Your task to perform on an android device: delete the emails in spam in the gmail app Image 0: 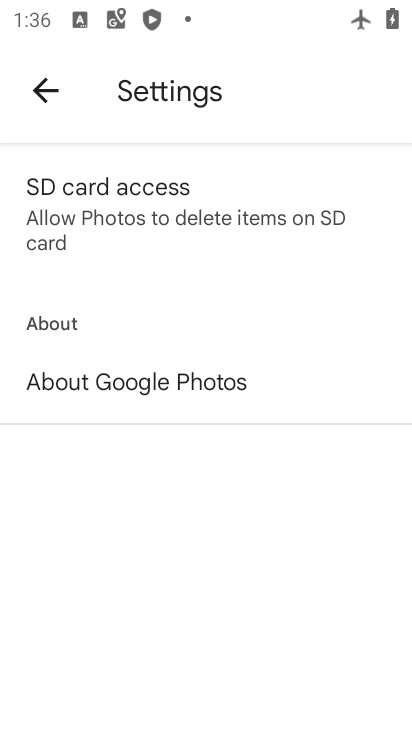
Step 0: press home button
Your task to perform on an android device: delete the emails in spam in the gmail app Image 1: 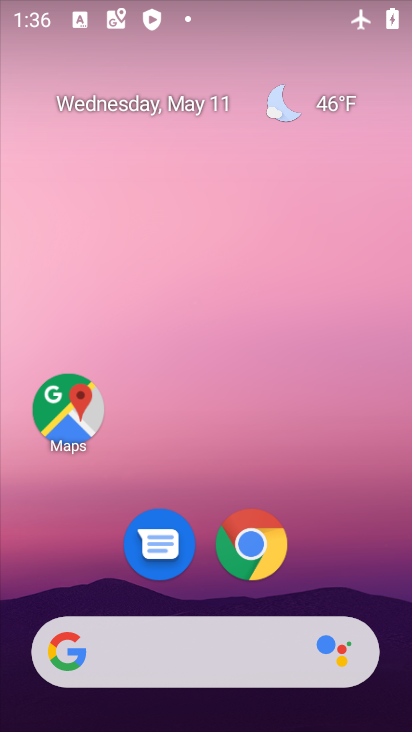
Step 1: drag from (390, 602) to (222, 24)
Your task to perform on an android device: delete the emails in spam in the gmail app Image 2: 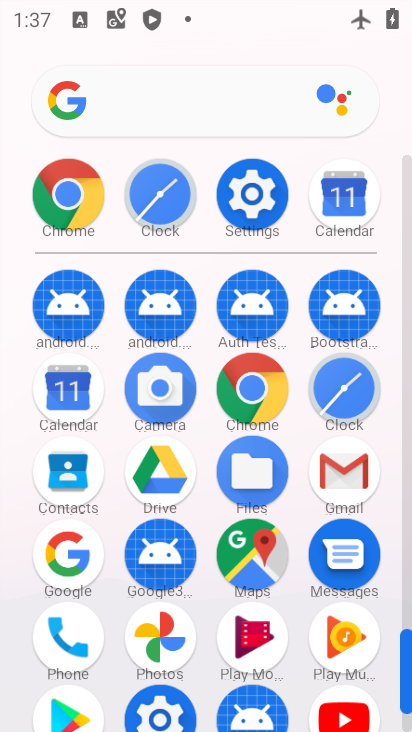
Step 2: click (405, 603)
Your task to perform on an android device: delete the emails in spam in the gmail app Image 3: 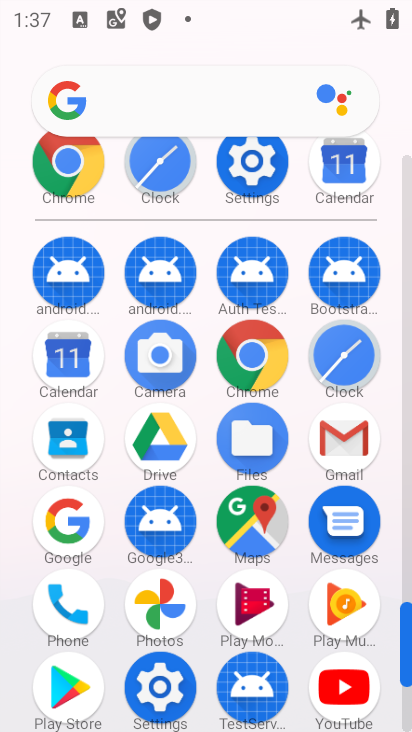
Step 3: click (343, 437)
Your task to perform on an android device: delete the emails in spam in the gmail app Image 4: 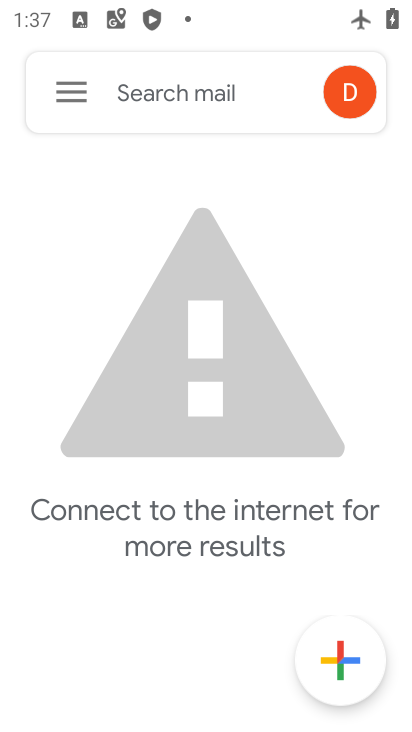
Step 4: click (67, 89)
Your task to perform on an android device: delete the emails in spam in the gmail app Image 5: 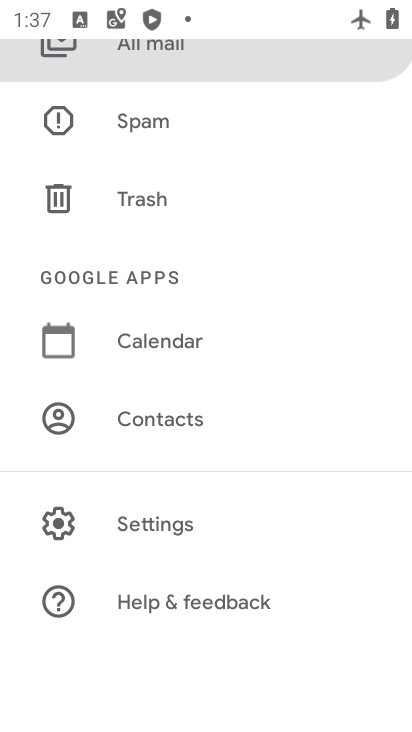
Step 5: click (132, 119)
Your task to perform on an android device: delete the emails in spam in the gmail app Image 6: 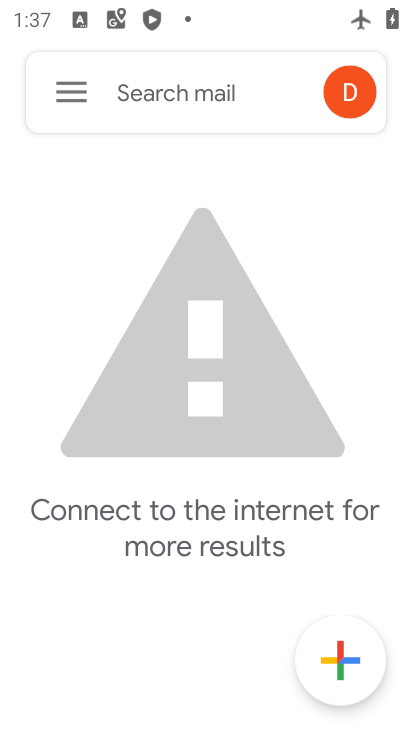
Step 6: task complete